Your task to perform on an android device: Is it going to rain tomorrow? Image 0: 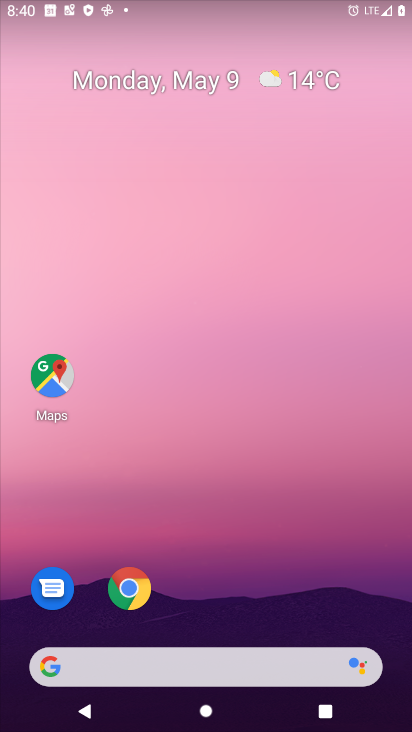
Step 0: click (195, 666)
Your task to perform on an android device: Is it going to rain tomorrow? Image 1: 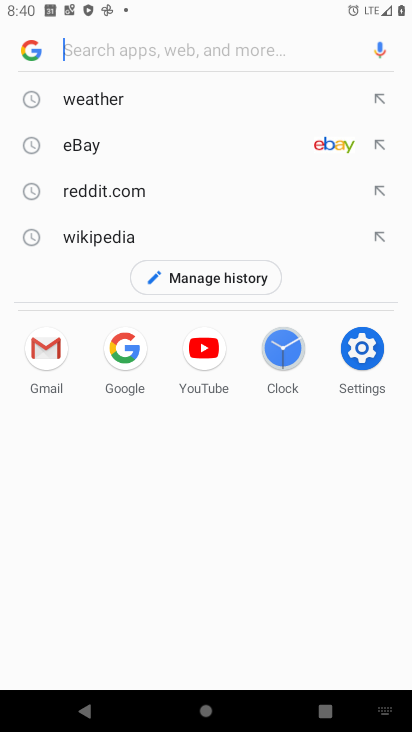
Step 1: type "Is it going to rain tomorrow"
Your task to perform on an android device: Is it going to rain tomorrow? Image 2: 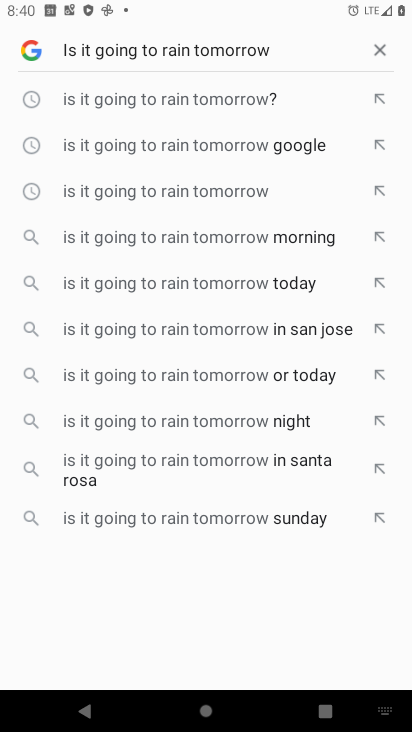
Step 2: click (149, 99)
Your task to perform on an android device: Is it going to rain tomorrow? Image 3: 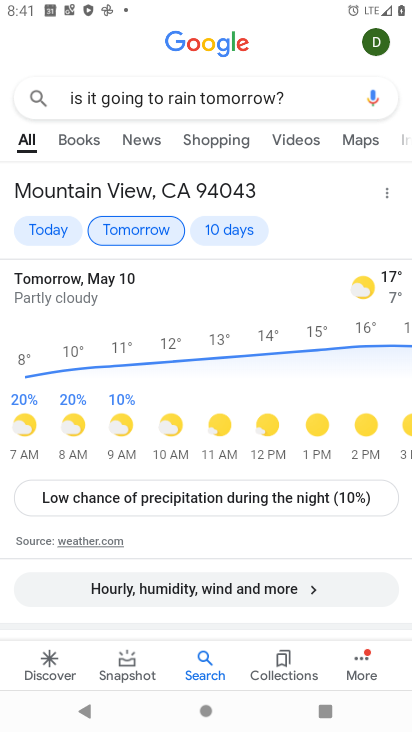
Step 3: task complete